Your task to perform on an android device: Go to wifi settings Image 0: 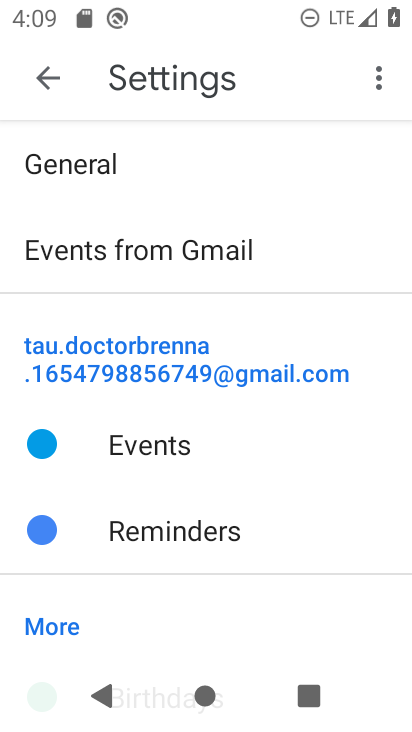
Step 0: press back button
Your task to perform on an android device: Go to wifi settings Image 1: 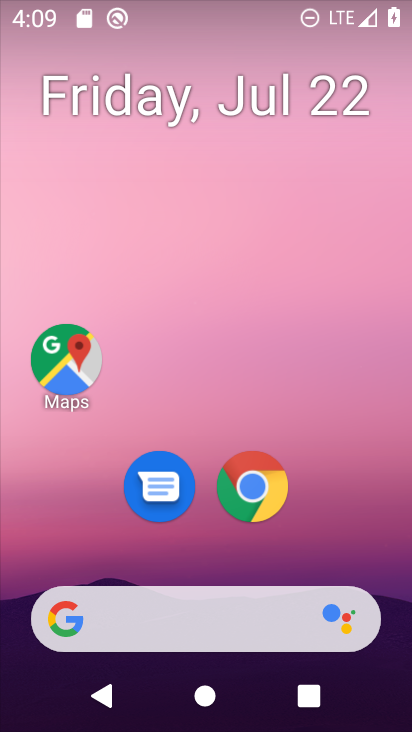
Step 1: drag from (116, 18) to (123, 608)
Your task to perform on an android device: Go to wifi settings Image 2: 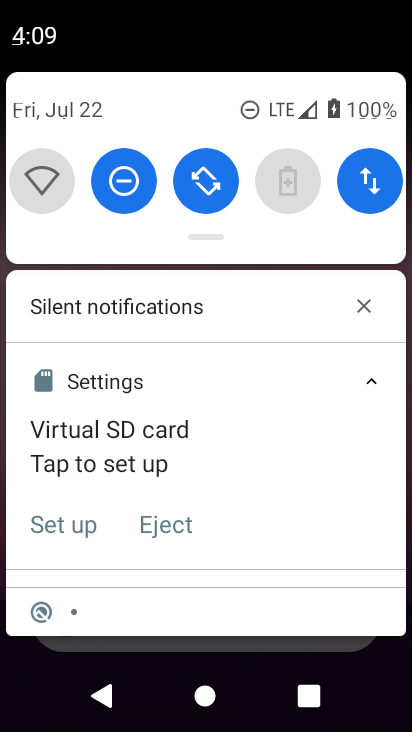
Step 2: click (50, 181)
Your task to perform on an android device: Go to wifi settings Image 3: 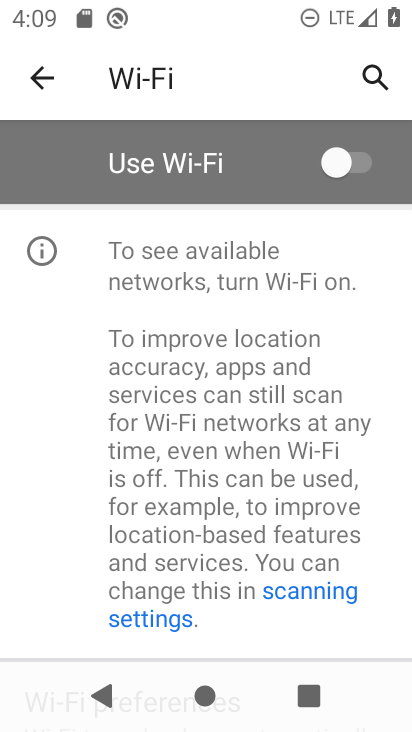
Step 3: task complete